Your task to perform on an android device: visit the assistant section in the google photos Image 0: 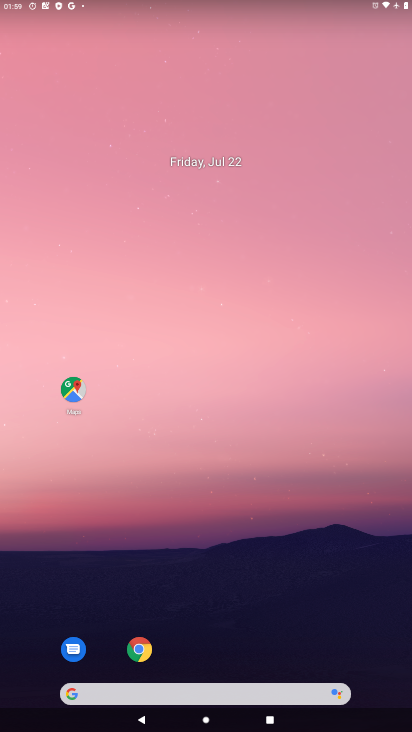
Step 0: drag from (256, 610) to (175, 6)
Your task to perform on an android device: visit the assistant section in the google photos Image 1: 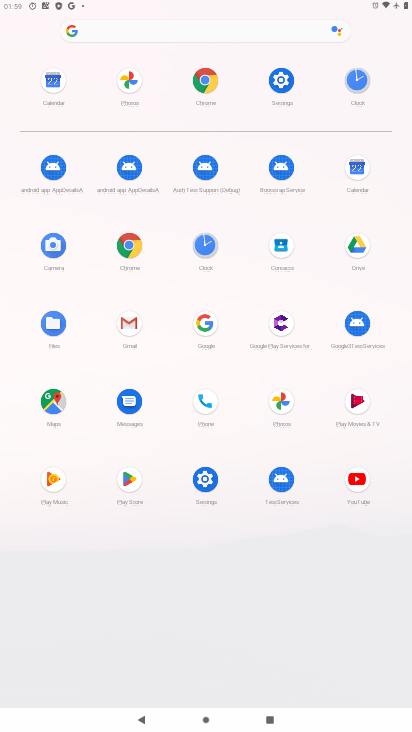
Step 1: click (286, 399)
Your task to perform on an android device: visit the assistant section in the google photos Image 2: 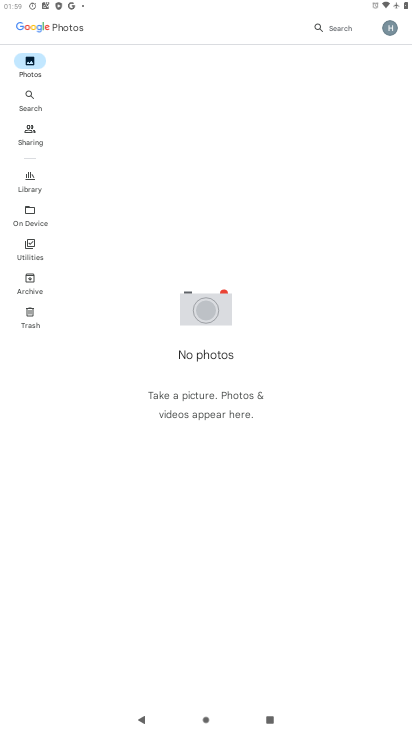
Step 2: click (35, 282)
Your task to perform on an android device: visit the assistant section in the google photos Image 3: 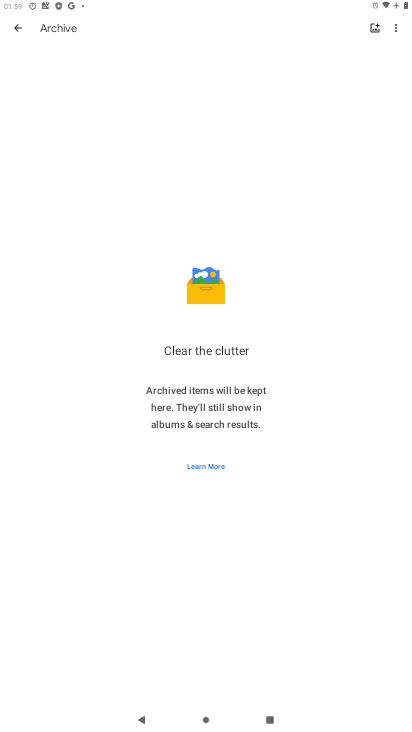
Step 3: click (33, 220)
Your task to perform on an android device: visit the assistant section in the google photos Image 4: 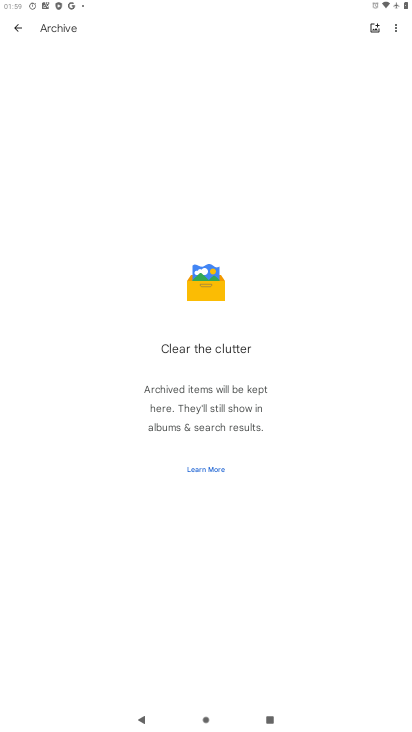
Step 4: click (16, 19)
Your task to perform on an android device: visit the assistant section in the google photos Image 5: 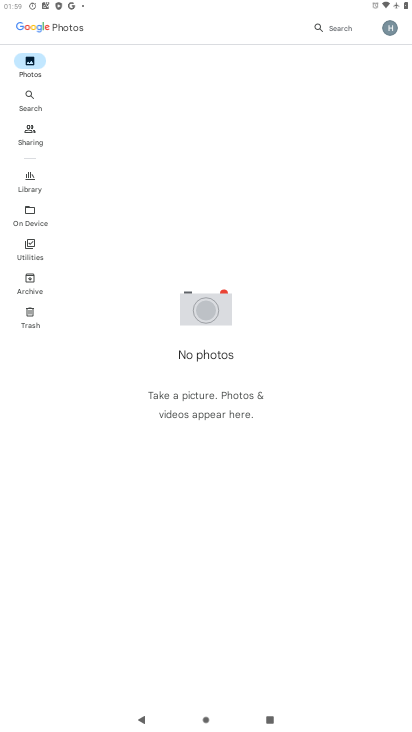
Step 5: click (26, 137)
Your task to perform on an android device: visit the assistant section in the google photos Image 6: 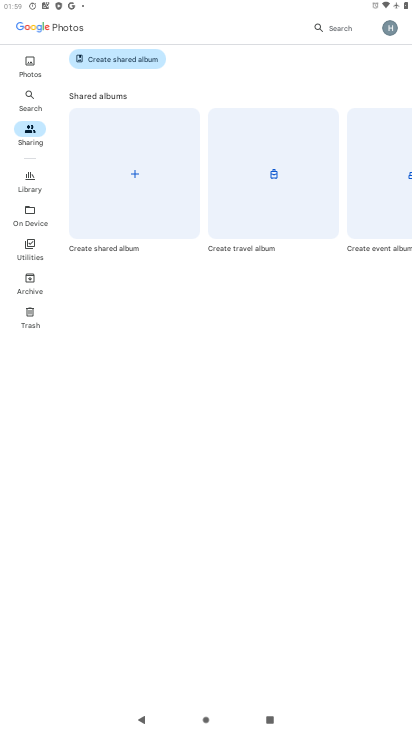
Step 6: click (34, 184)
Your task to perform on an android device: visit the assistant section in the google photos Image 7: 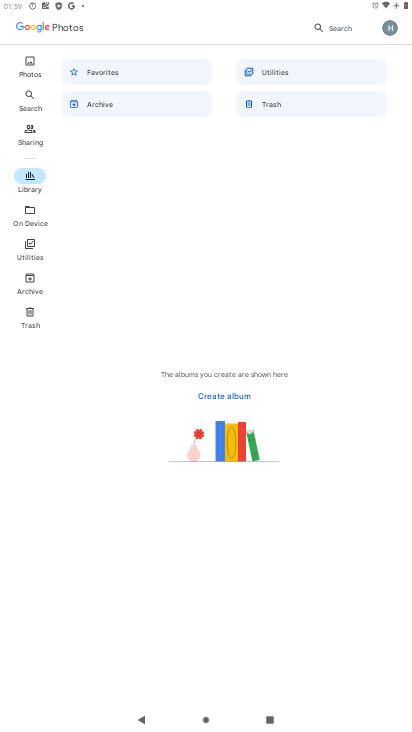
Step 7: click (22, 286)
Your task to perform on an android device: visit the assistant section in the google photos Image 8: 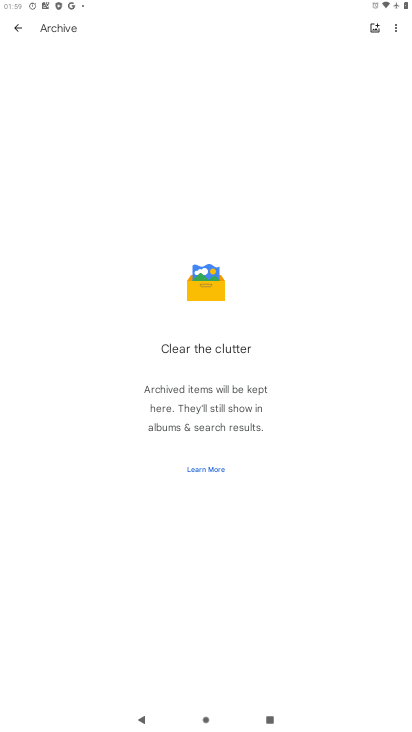
Step 8: click (20, 23)
Your task to perform on an android device: visit the assistant section in the google photos Image 9: 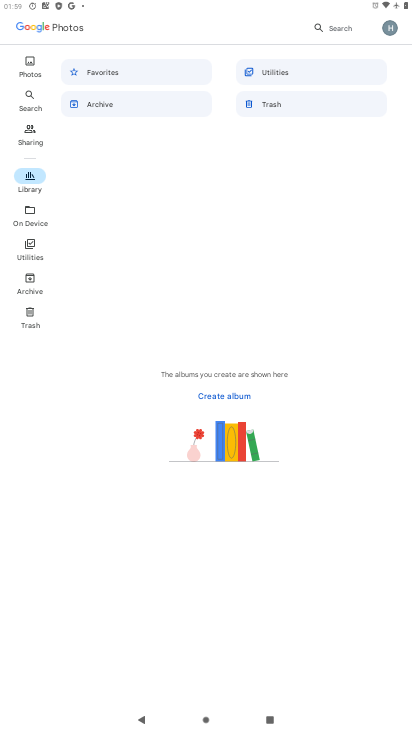
Step 9: click (36, 319)
Your task to perform on an android device: visit the assistant section in the google photos Image 10: 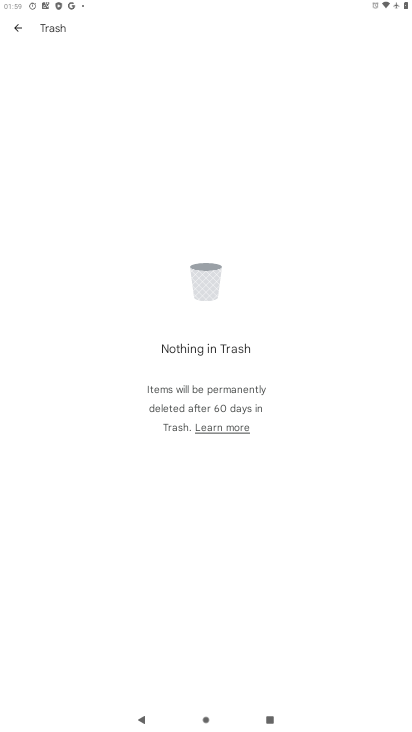
Step 10: task complete